Your task to perform on an android device: add a contact Image 0: 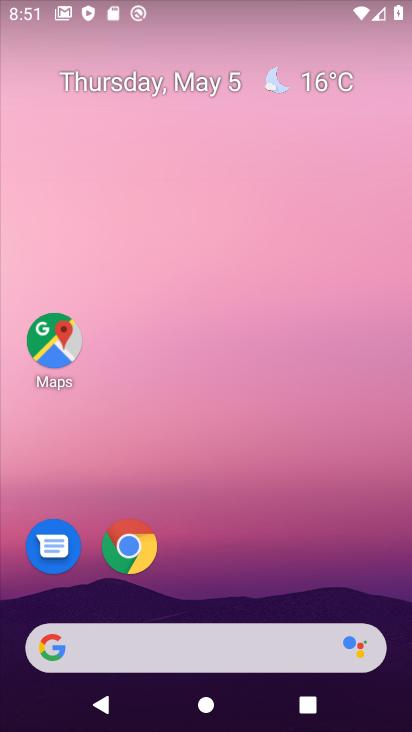
Step 0: drag from (262, 579) to (216, 27)
Your task to perform on an android device: add a contact Image 1: 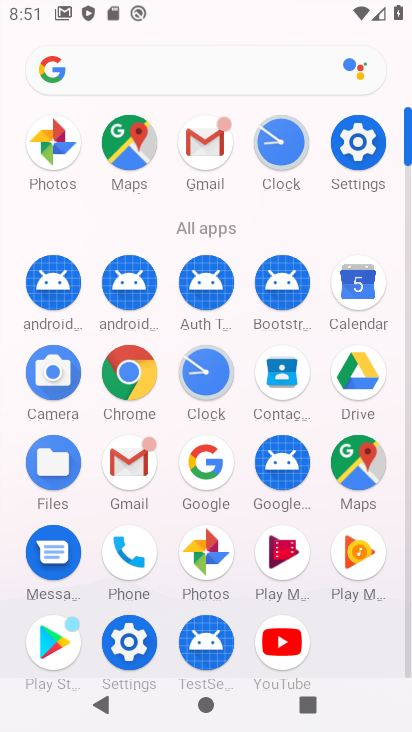
Step 1: click (288, 361)
Your task to perform on an android device: add a contact Image 2: 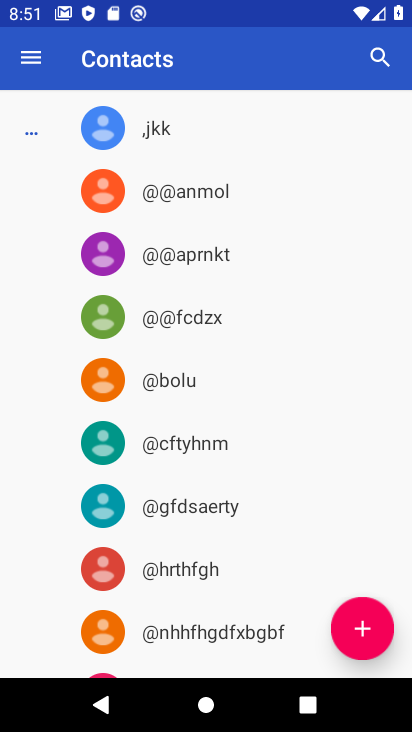
Step 2: click (349, 634)
Your task to perform on an android device: add a contact Image 3: 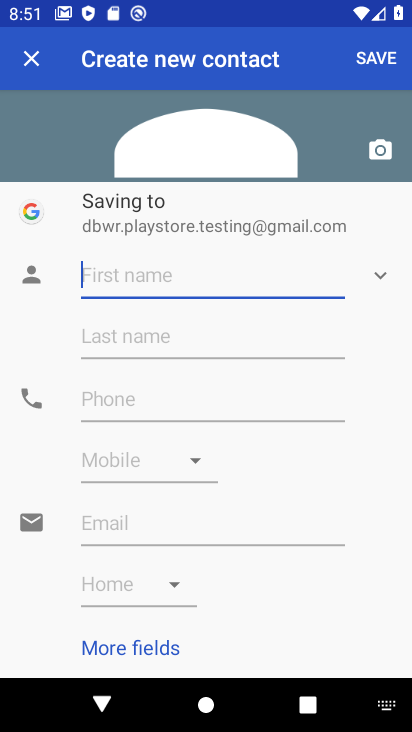
Step 3: type "bnbnbnbn"
Your task to perform on an android device: add a contact Image 4: 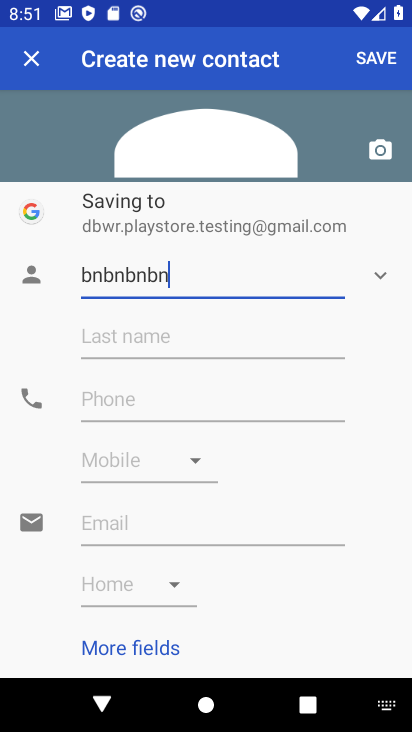
Step 4: click (98, 395)
Your task to perform on an android device: add a contact Image 5: 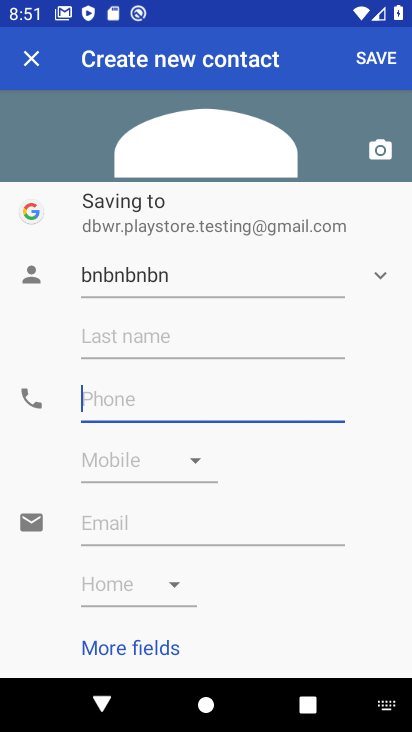
Step 5: type "9898989898"
Your task to perform on an android device: add a contact Image 6: 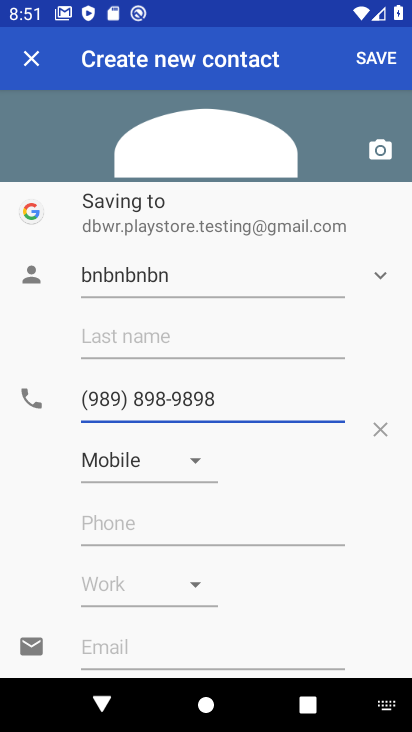
Step 6: click (380, 59)
Your task to perform on an android device: add a contact Image 7: 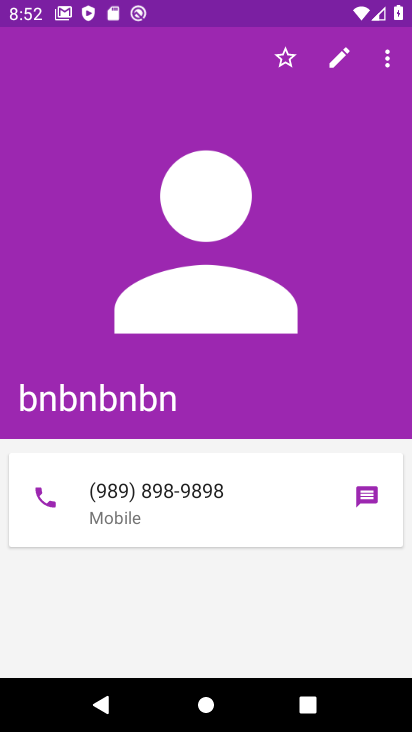
Step 7: task complete